Your task to perform on an android device: change alarm snooze length Image 0: 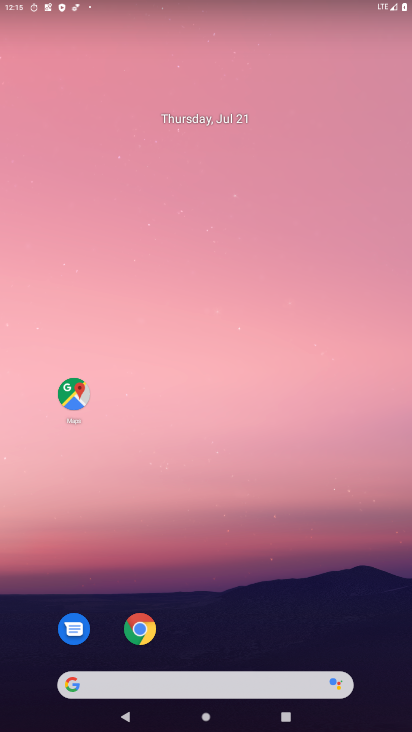
Step 0: drag from (265, 686) to (263, 60)
Your task to perform on an android device: change alarm snooze length Image 1: 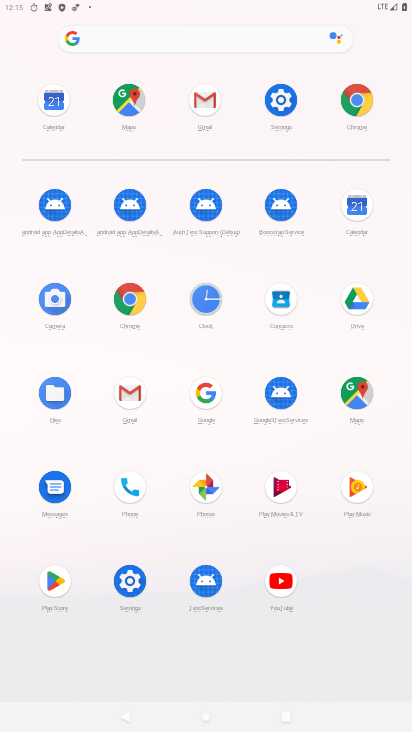
Step 1: click (216, 304)
Your task to perform on an android device: change alarm snooze length Image 2: 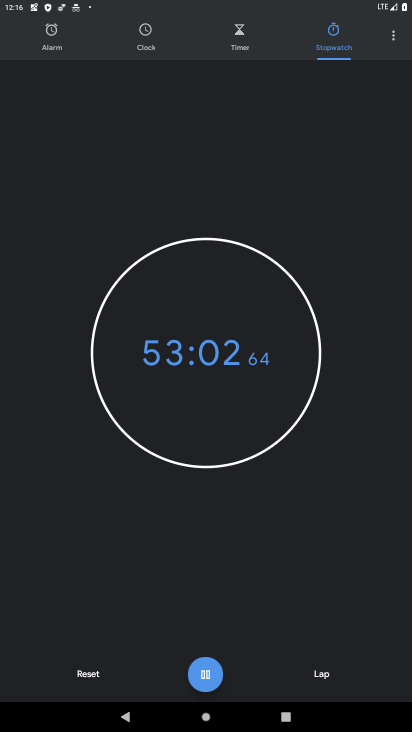
Step 2: click (395, 26)
Your task to perform on an android device: change alarm snooze length Image 3: 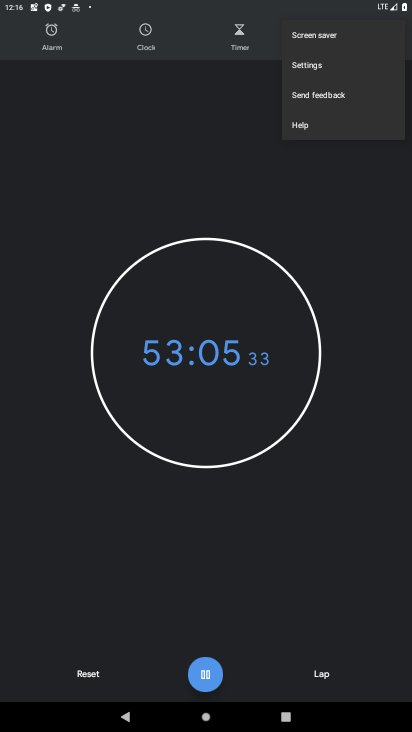
Step 3: click (315, 67)
Your task to perform on an android device: change alarm snooze length Image 4: 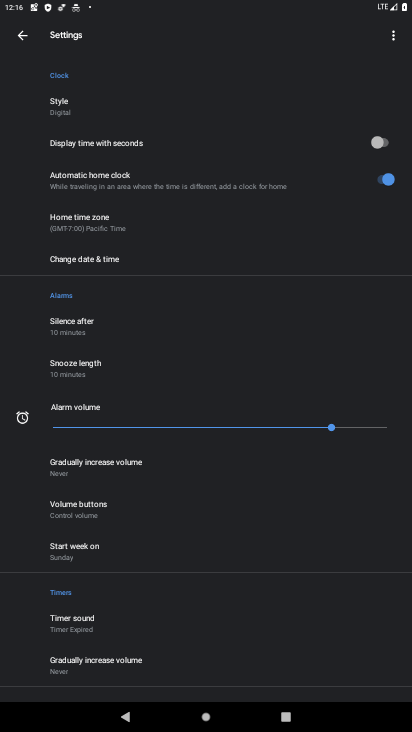
Step 4: click (93, 374)
Your task to perform on an android device: change alarm snooze length Image 5: 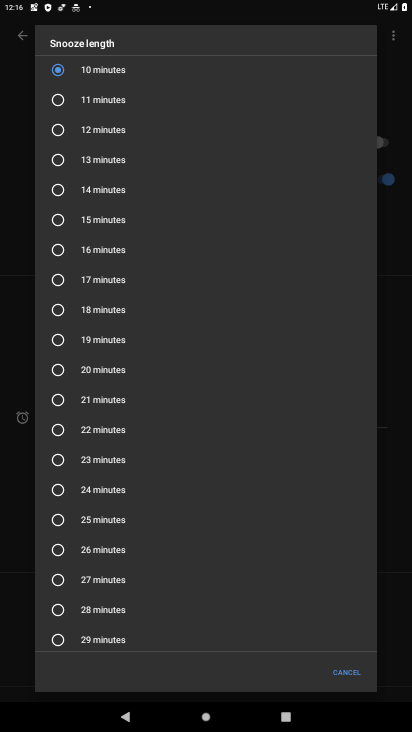
Step 5: click (51, 104)
Your task to perform on an android device: change alarm snooze length Image 6: 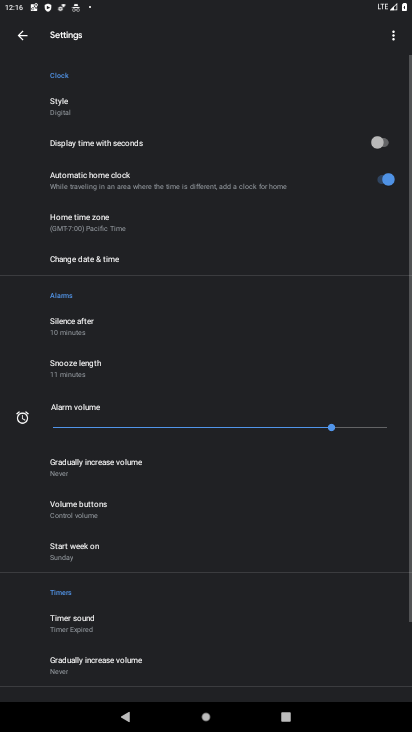
Step 6: task complete